Your task to perform on an android device: Search for logitech g933 on ebay, select the first entry, add it to the cart, then select checkout. Image 0: 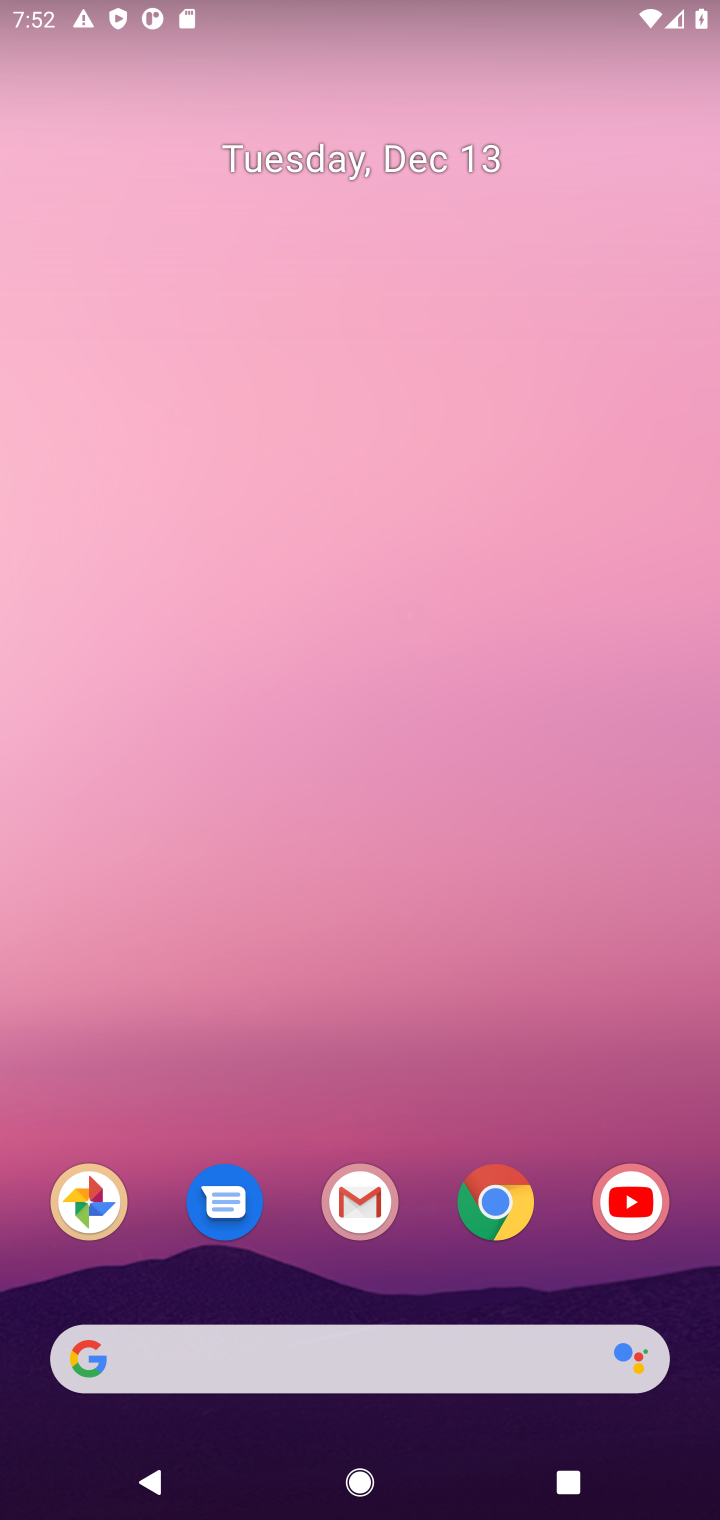
Step 0: click (505, 1214)
Your task to perform on an android device: Search for logitech g933 on ebay, select the first entry, add it to the cart, then select checkout. Image 1: 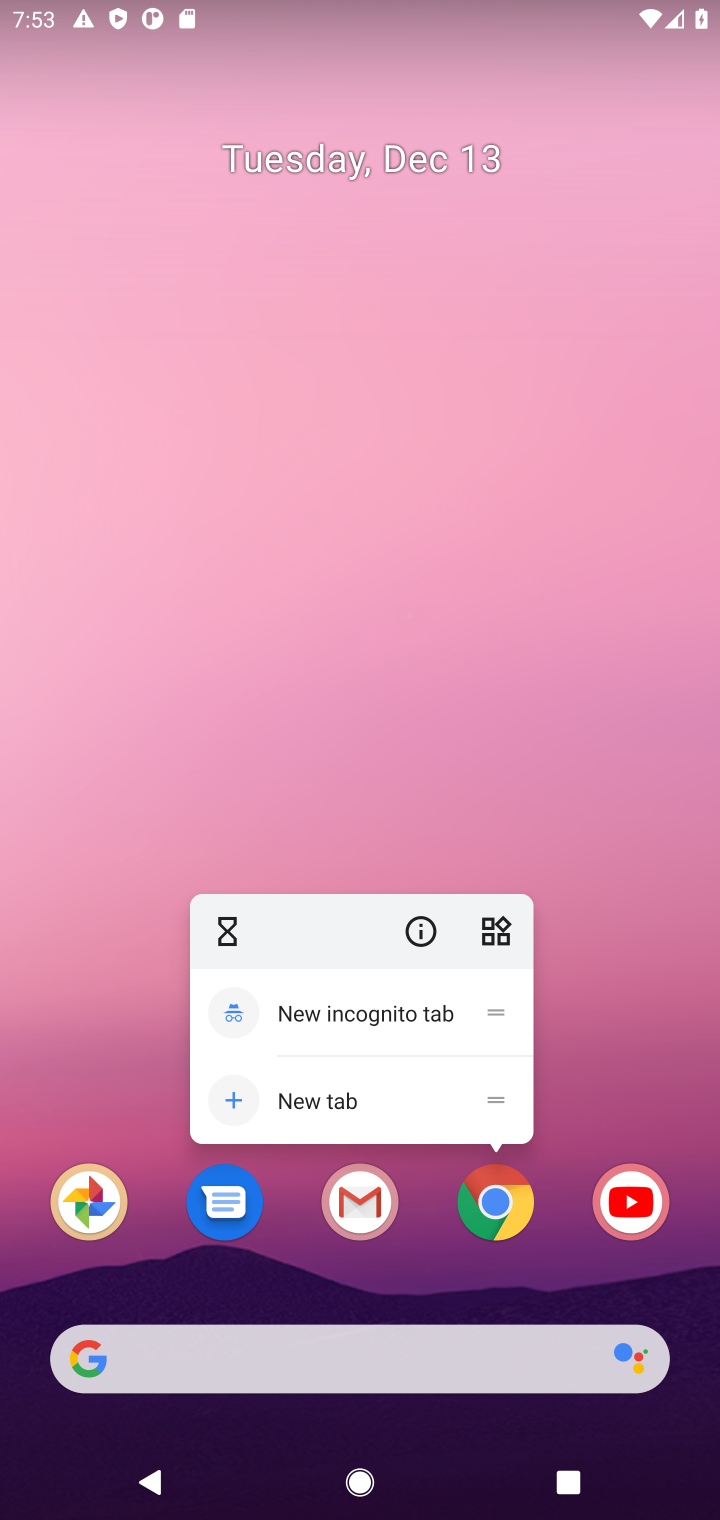
Step 1: click (505, 1214)
Your task to perform on an android device: Search for logitech g933 on ebay, select the first entry, add it to the cart, then select checkout. Image 2: 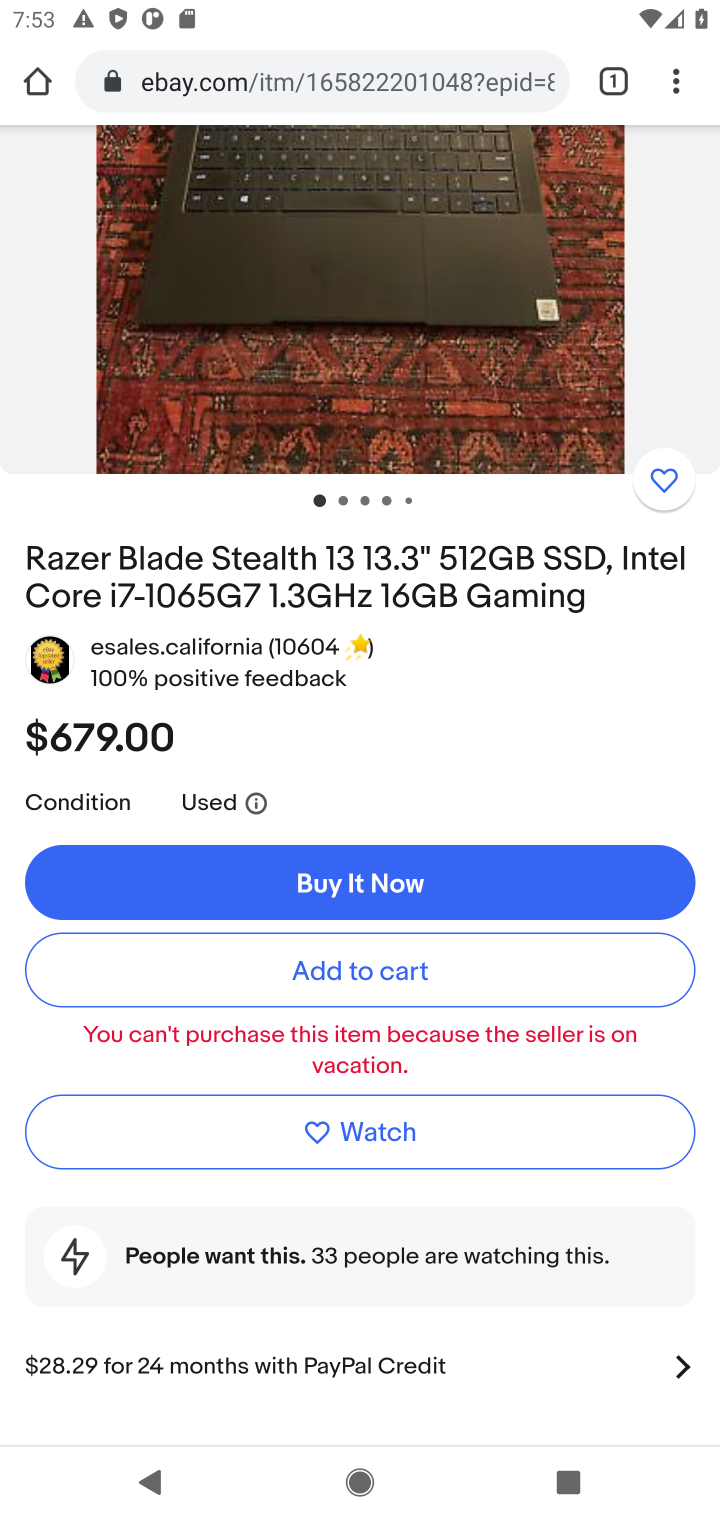
Step 2: drag from (663, 295) to (620, 995)
Your task to perform on an android device: Search for logitech g933 on ebay, select the first entry, add it to the cart, then select checkout. Image 3: 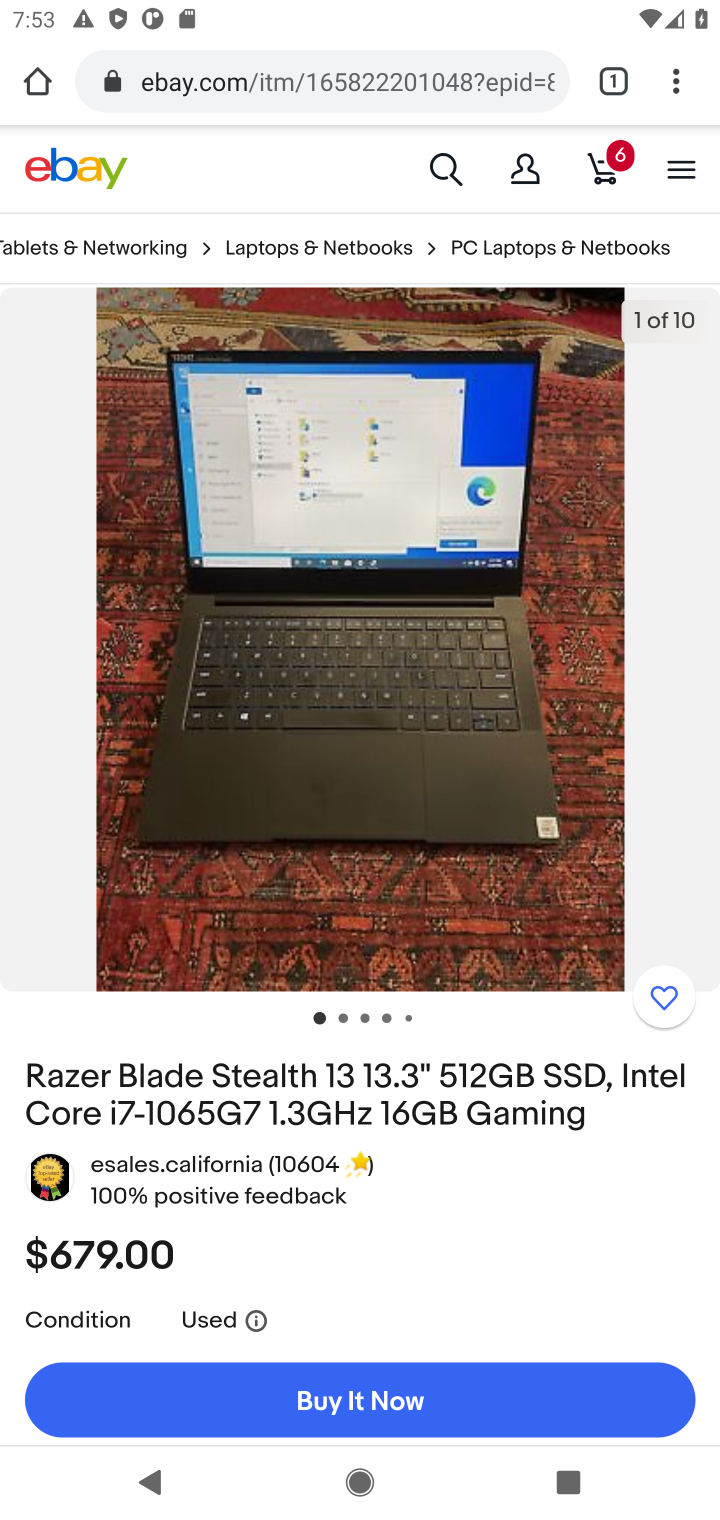
Step 3: click (435, 169)
Your task to perform on an android device: Search for logitech g933 on ebay, select the first entry, add it to the cart, then select checkout. Image 4: 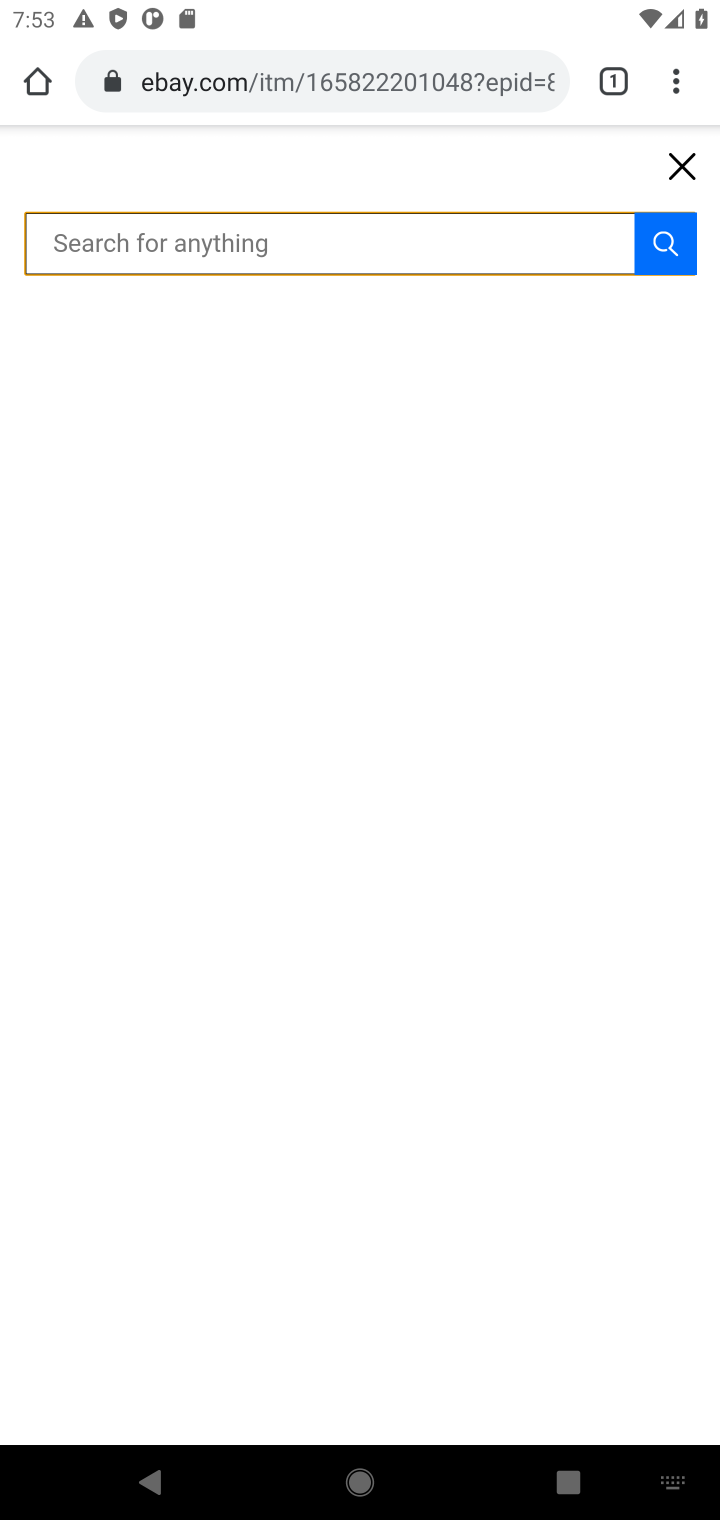
Step 4: type "logitech g933"
Your task to perform on an android device: Search for logitech g933 on ebay, select the first entry, add it to the cart, then select checkout. Image 5: 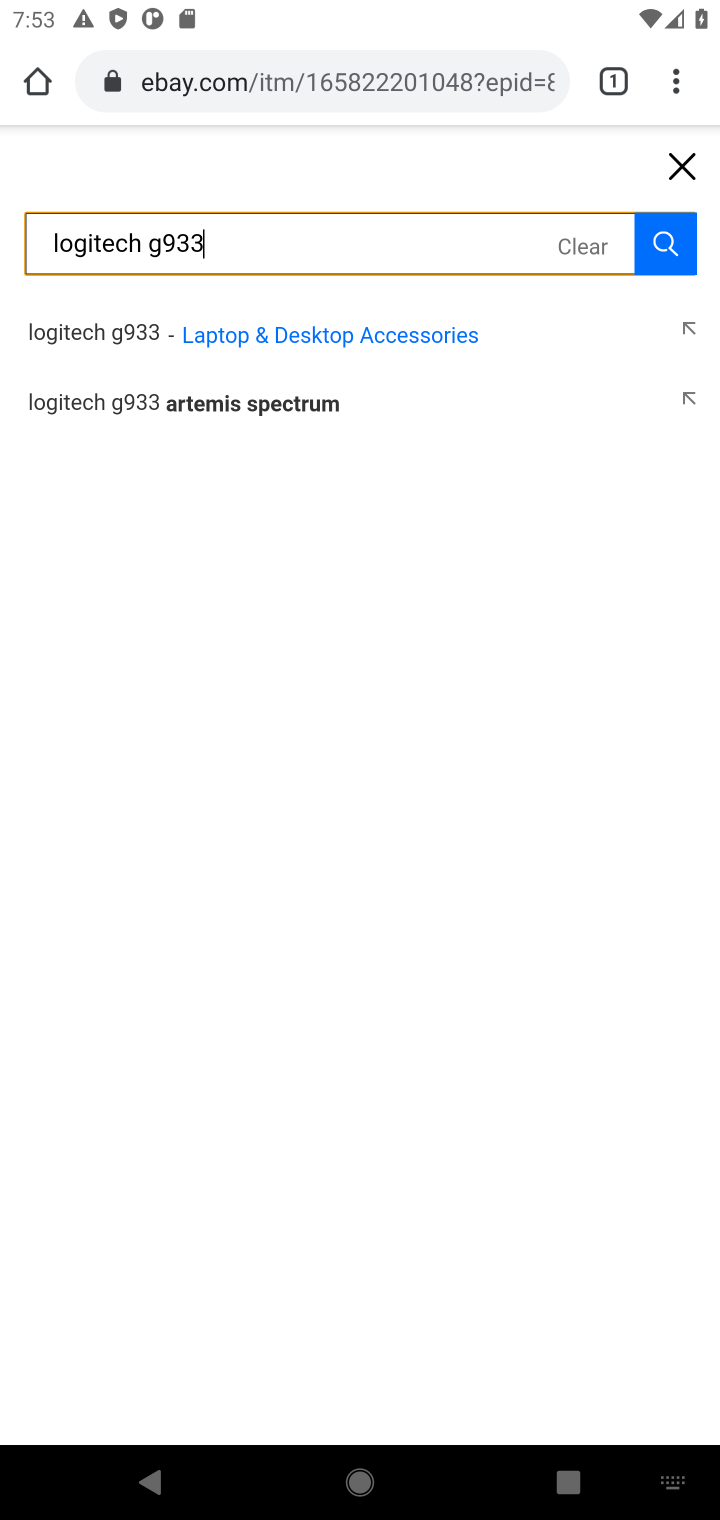
Step 5: click (78, 346)
Your task to perform on an android device: Search for logitech g933 on ebay, select the first entry, add it to the cart, then select checkout. Image 6: 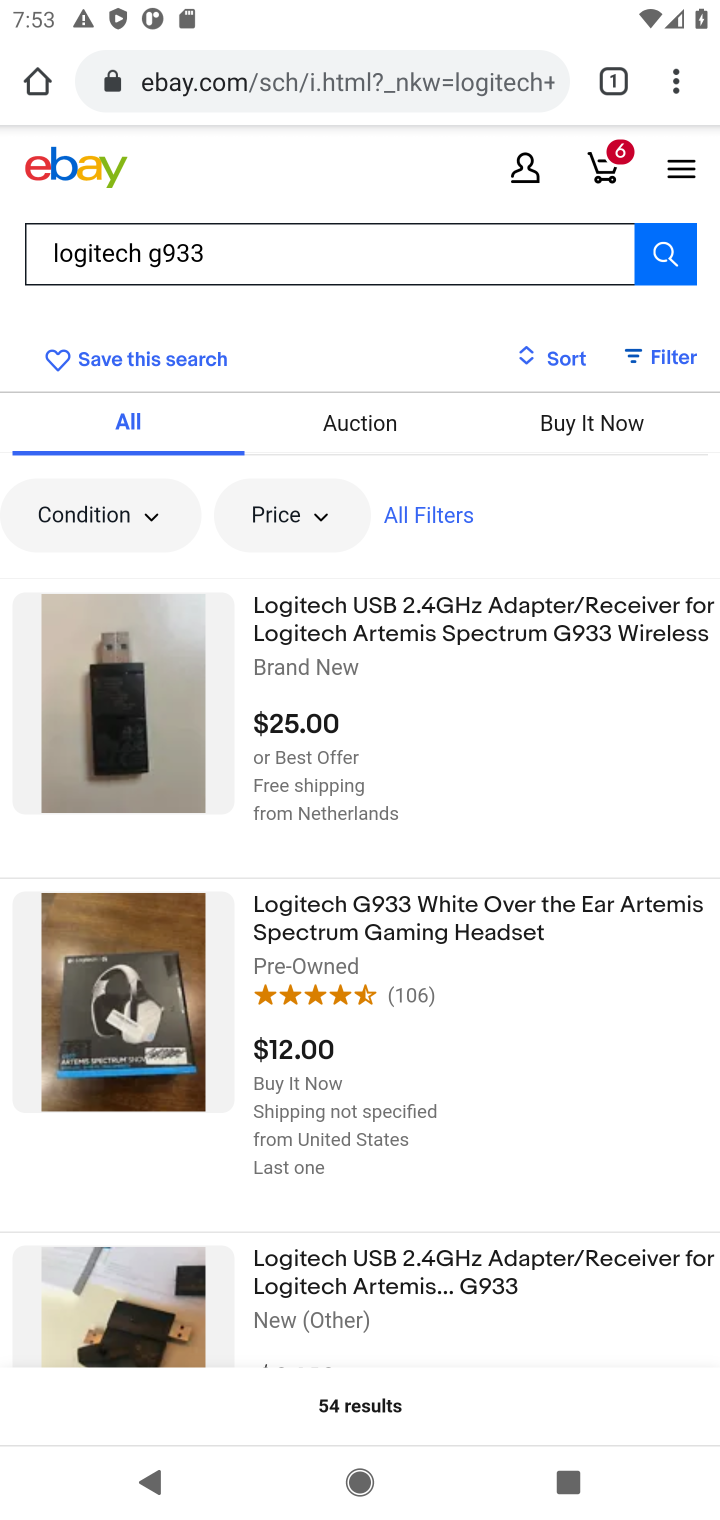
Step 6: click (316, 642)
Your task to perform on an android device: Search for logitech g933 on ebay, select the first entry, add it to the cart, then select checkout. Image 7: 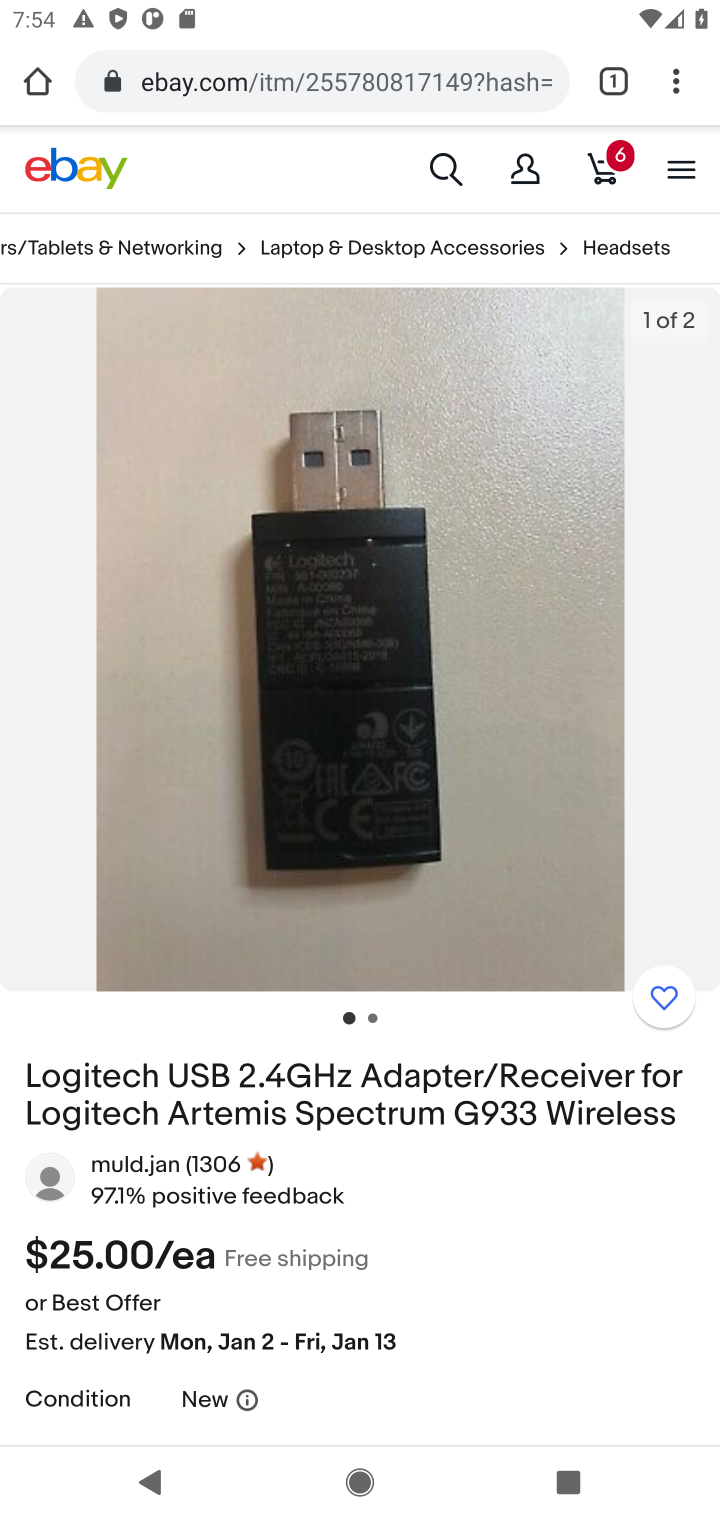
Step 7: drag from (317, 1116) to (359, 487)
Your task to perform on an android device: Search for logitech g933 on ebay, select the first entry, add it to the cart, then select checkout. Image 8: 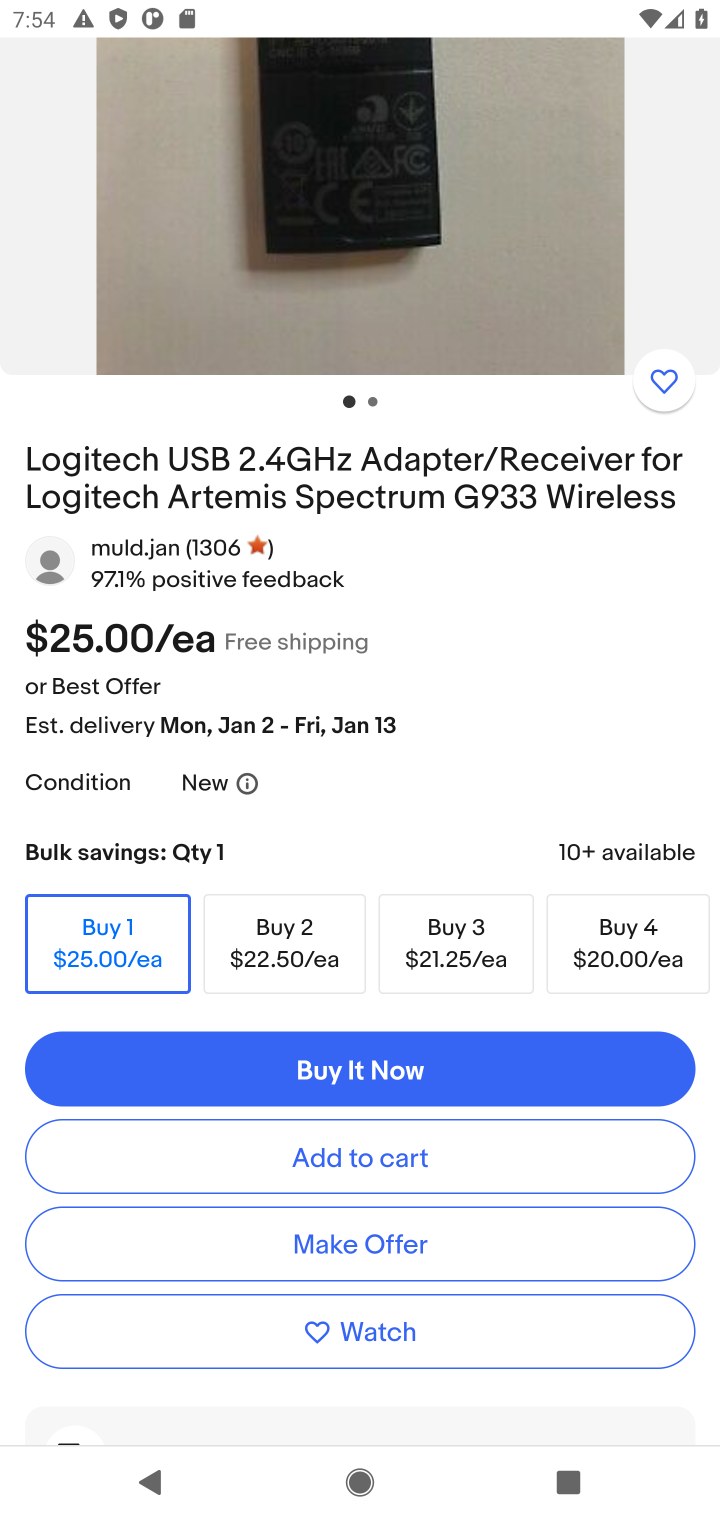
Step 8: click (293, 1151)
Your task to perform on an android device: Search for logitech g933 on ebay, select the first entry, add it to the cart, then select checkout. Image 9: 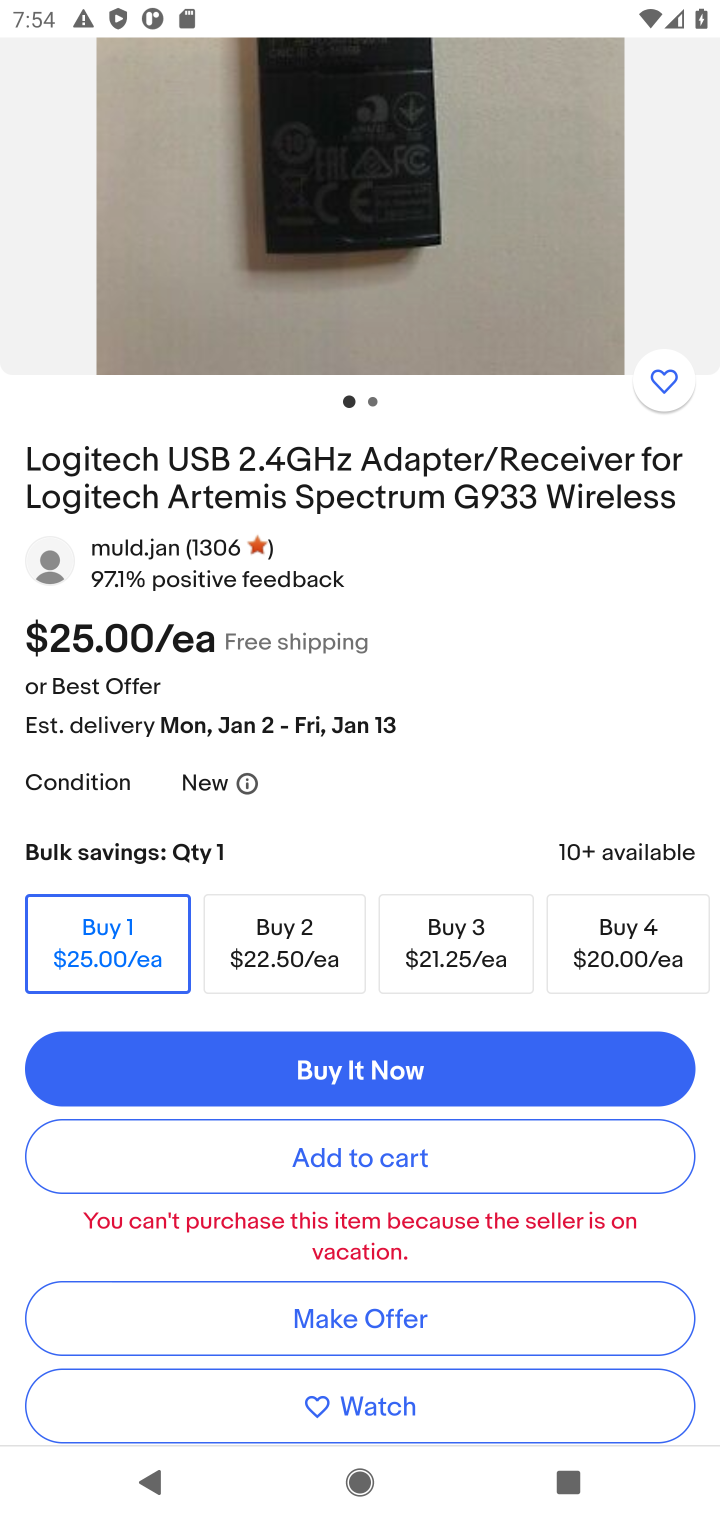
Step 9: task complete